Your task to perform on an android device: Play the last video I watched on Youtube Image 0: 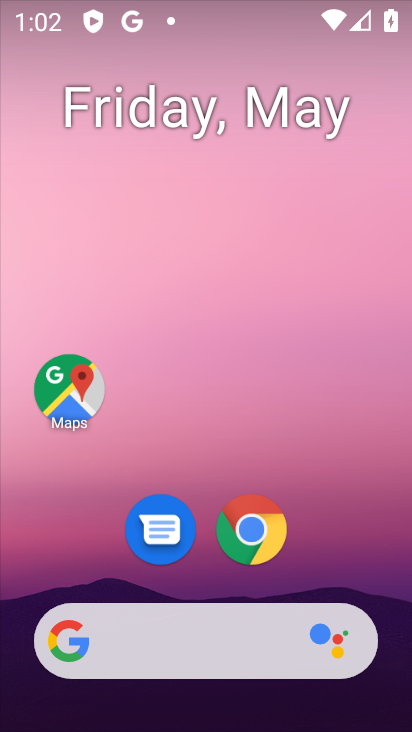
Step 0: drag from (99, 589) to (223, 92)
Your task to perform on an android device: Play the last video I watched on Youtube Image 1: 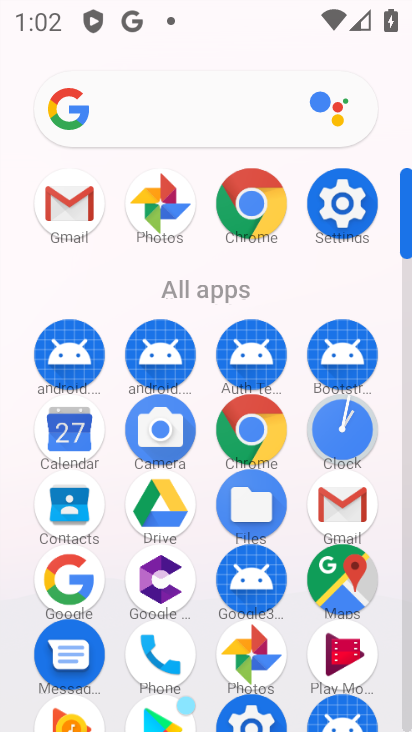
Step 1: drag from (219, 569) to (299, 288)
Your task to perform on an android device: Play the last video I watched on Youtube Image 2: 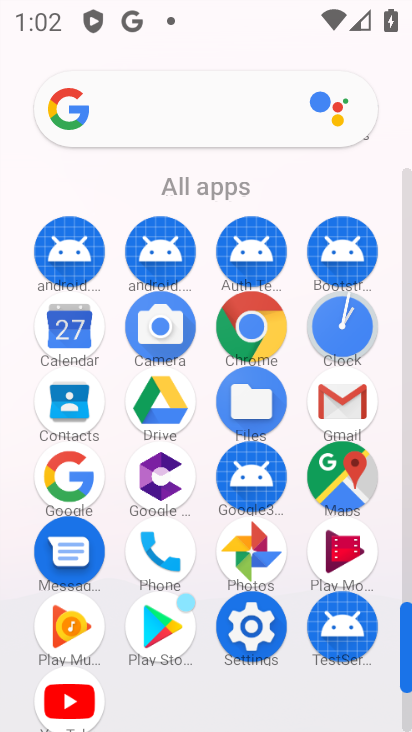
Step 2: click (65, 695)
Your task to perform on an android device: Play the last video I watched on Youtube Image 3: 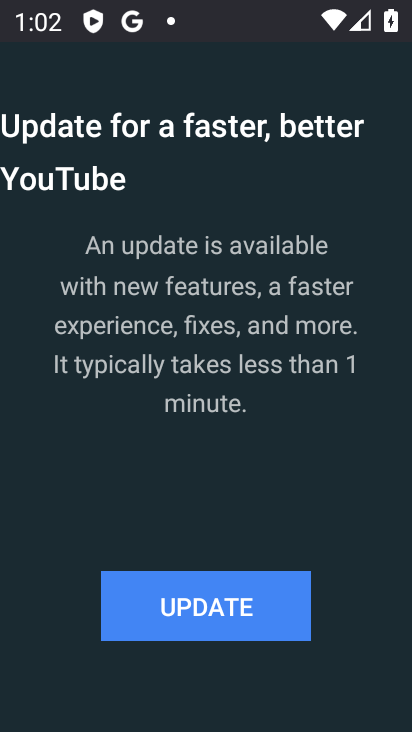
Step 3: click (291, 627)
Your task to perform on an android device: Play the last video I watched on Youtube Image 4: 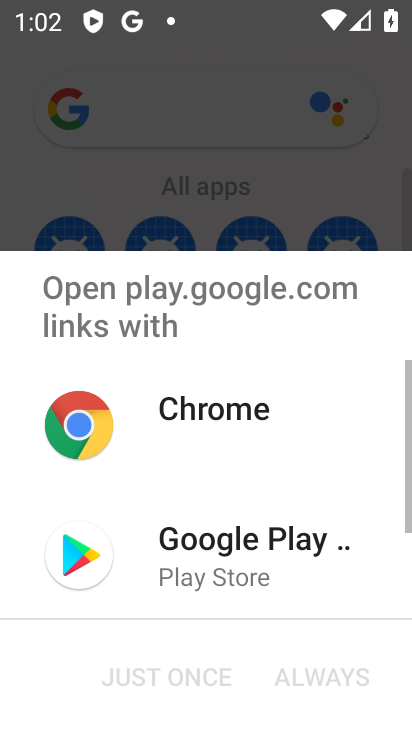
Step 4: click (277, 548)
Your task to perform on an android device: Play the last video I watched on Youtube Image 5: 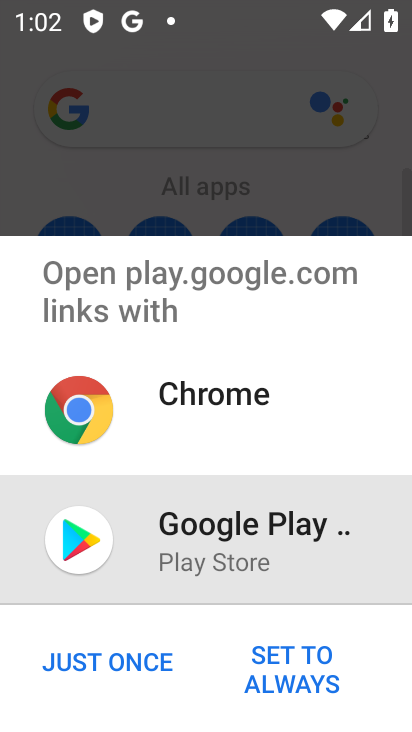
Step 5: click (121, 667)
Your task to perform on an android device: Play the last video I watched on Youtube Image 6: 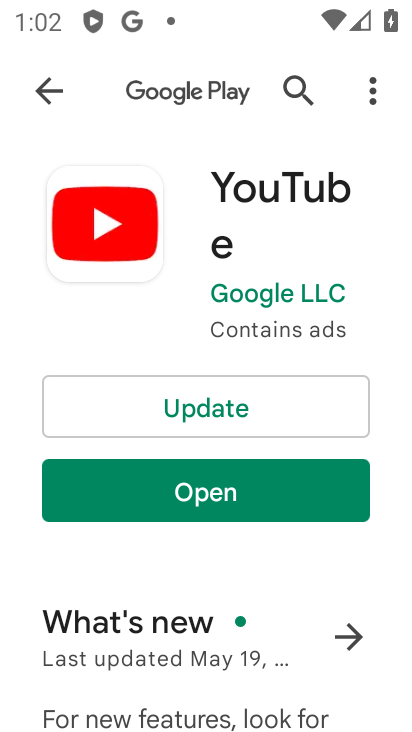
Step 6: click (256, 400)
Your task to perform on an android device: Play the last video I watched on Youtube Image 7: 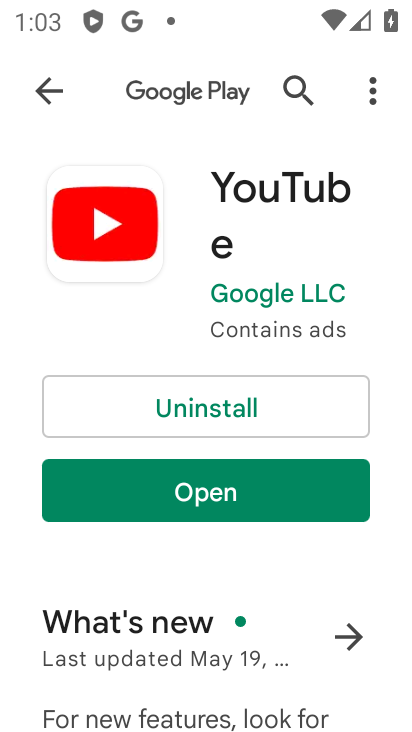
Step 7: click (253, 494)
Your task to perform on an android device: Play the last video I watched on Youtube Image 8: 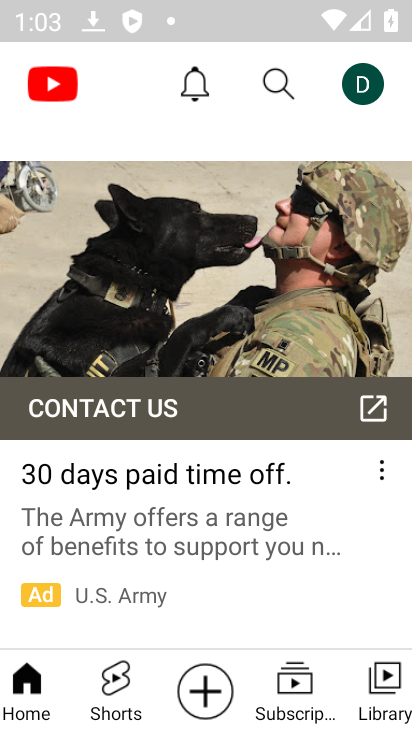
Step 8: click (398, 710)
Your task to perform on an android device: Play the last video I watched on Youtube Image 9: 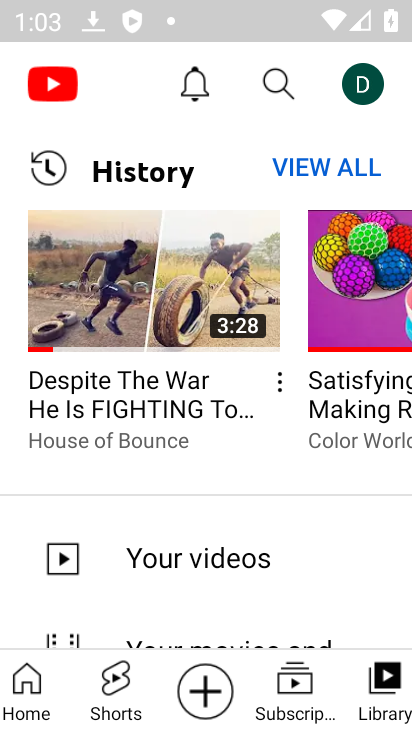
Step 9: click (146, 307)
Your task to perform on an android device: Play the last video I watched on Youtube Image 10: 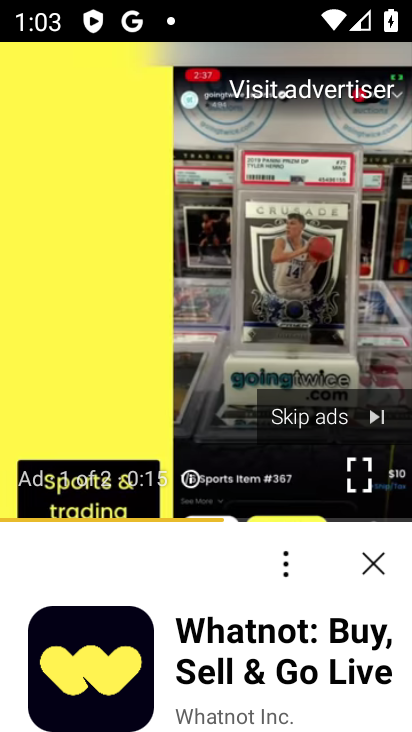
Step 10: click (361, 424)
Your task to perform on an android device: Play the last video I watched on Youtube Image 11: 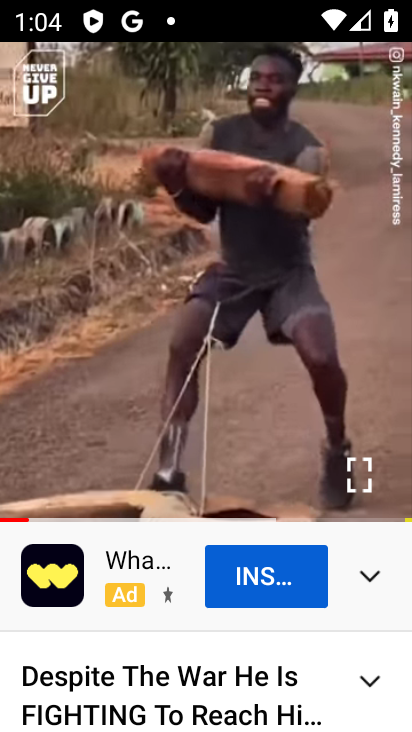
Step 11: task complete